Your task to perform on an android device: Open Google Maps and go to "Timeline" Image 0: 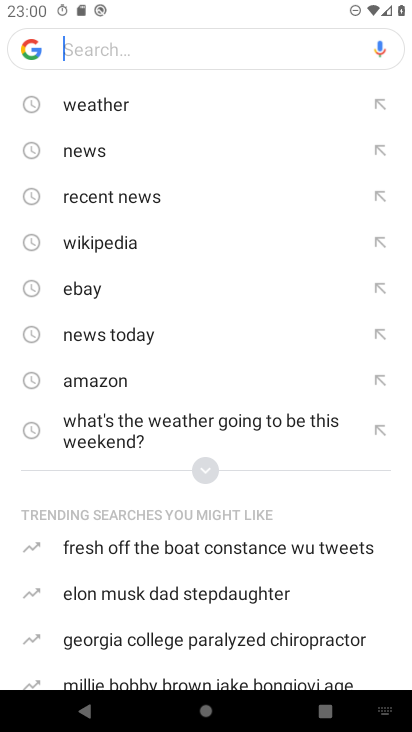
Step 0: press home button
Your task to perform on an android device: Open Google Maps and go to "Timeline" Image 1: 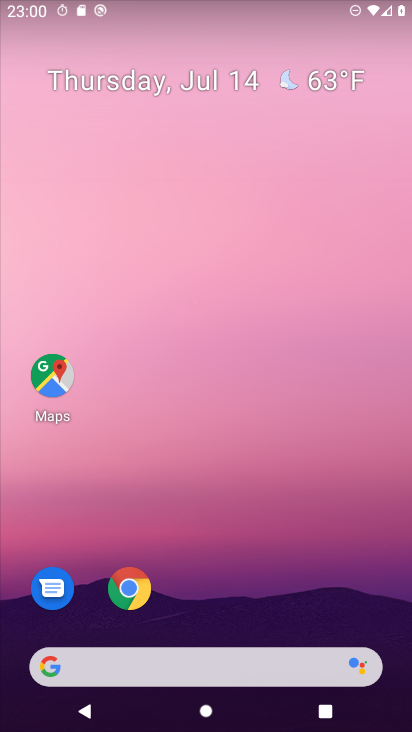
Step 1: drag from (383, 589) to (326, 23)
Your task to perform on an android device: Open Google Maps and go to "Timeline" Image 2: 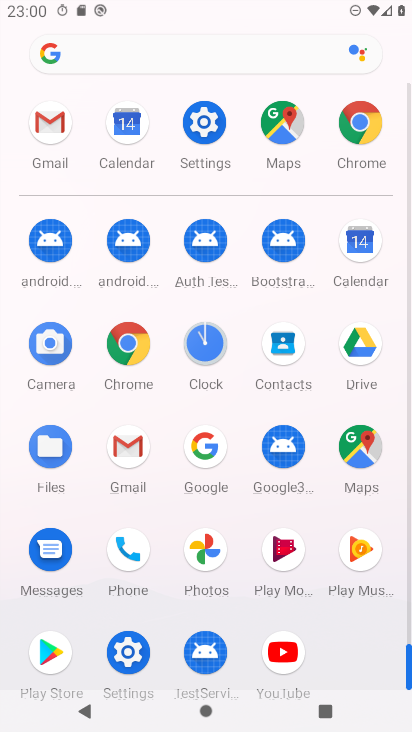
Step 2: click (293, 135)
Your task to perform on an android device: Open Google Maps and go to "Timeline" Image 3: 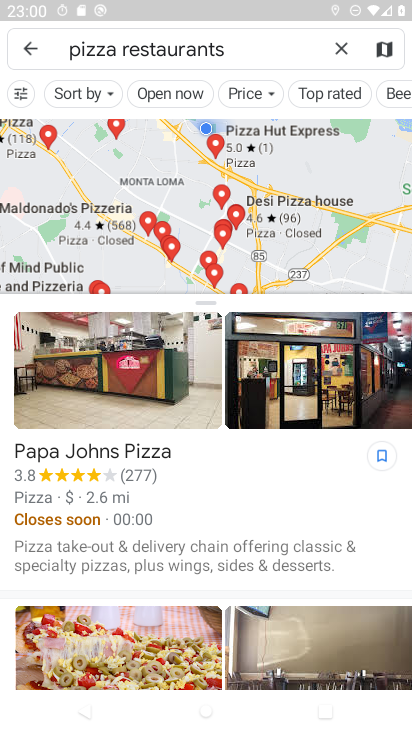
Step 3: press back button
Your task to perform on an android device: Open Google Maps and go to "Timeline" Image 4: 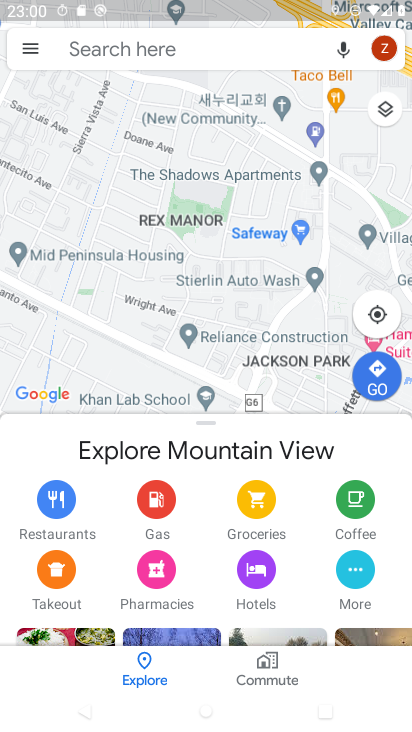
Step 4: click (28, 51)
Your task to perform on an android device: Open Google Maps and go to "Timeline" Image 5: 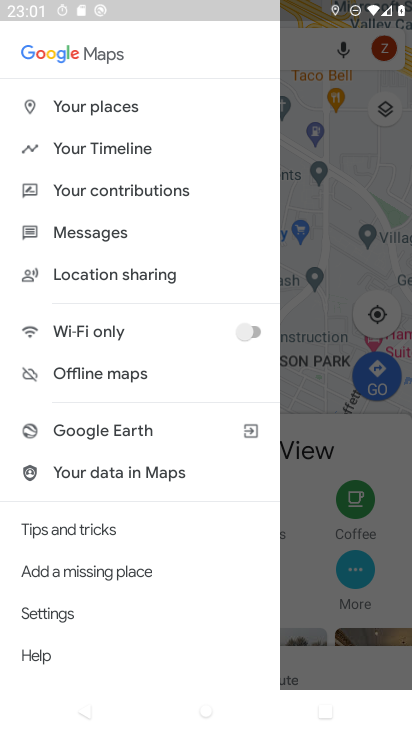
Step 5: click (151, 140)
Your task to perform on an android device: Open Google Maps and go to "Timeline" Image 6: 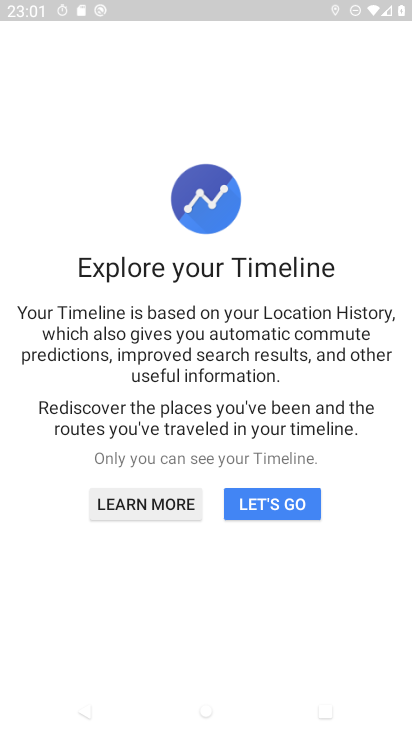
Step 6: task complete